Your task to perform on an android device: What's the weather today? Image 0: 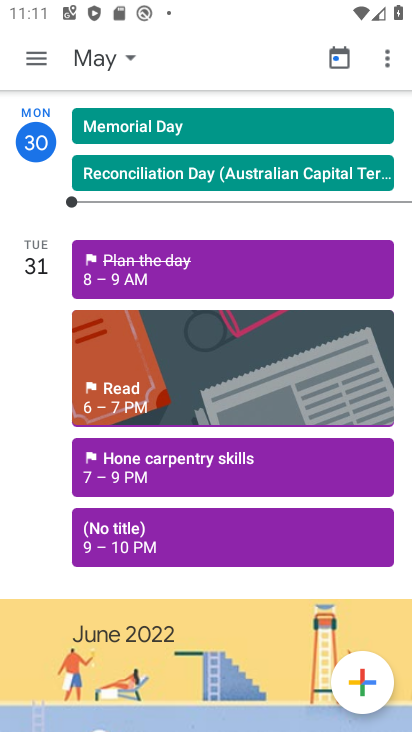
Step 0: press home button
Your task to perform on an android device: What's the weather today? Image 1: 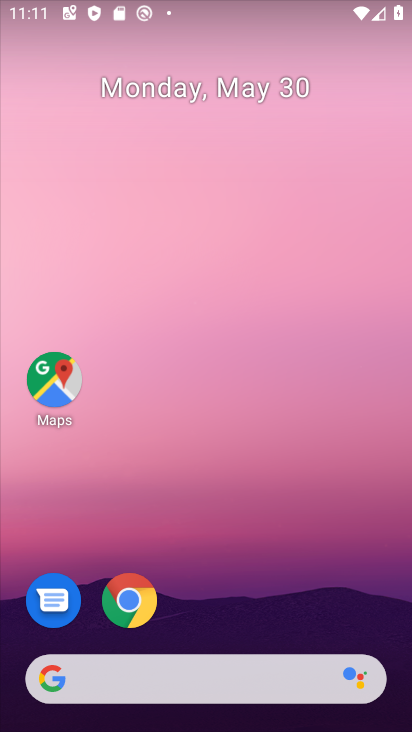
Step 1: drag from (222, 720) to (208, 37)
Your task to perform on an android device: What's the weather today? Image 2: 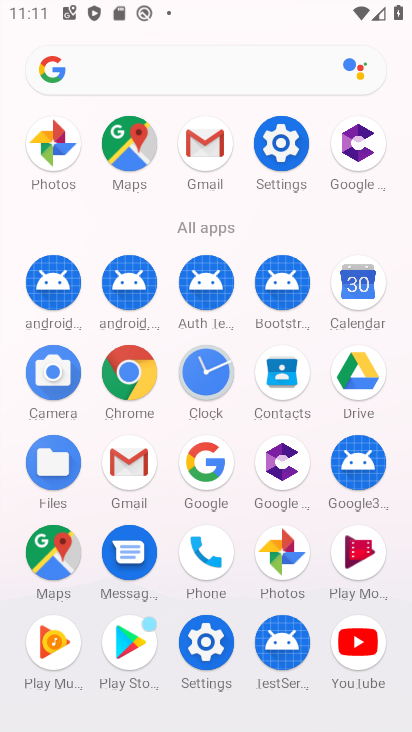
Step 2: click (203, 459)
Your task to perform on an android device: What's the weather today? Image 3: 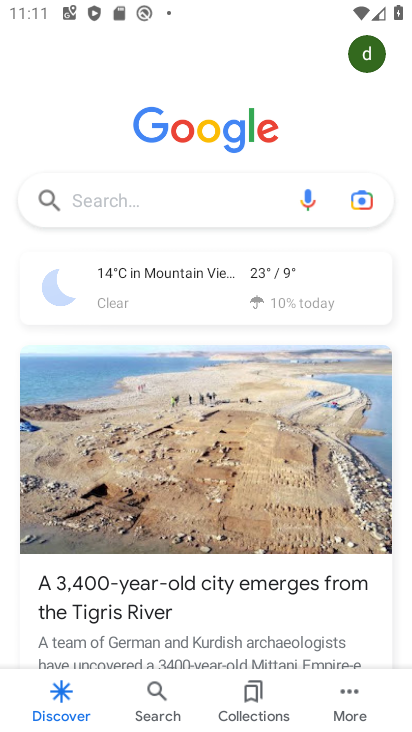
Step 3: click (159, 270)
Your task to perform on an android device: What's the weather today? Image 4: 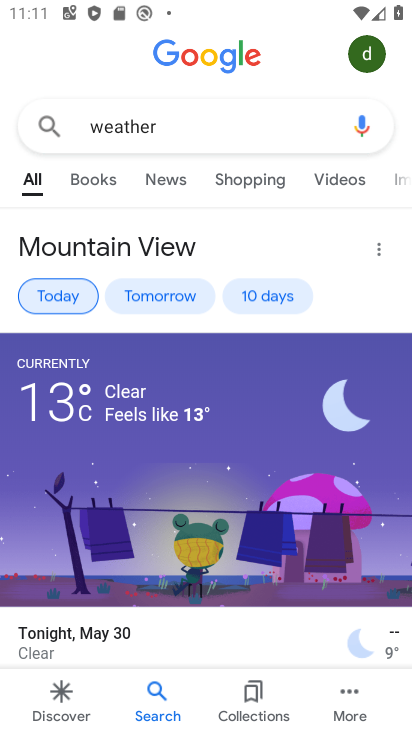
Step 4: task complete